Your task to perform on an android device: Show me productivity apps on the Play Store Image 0: 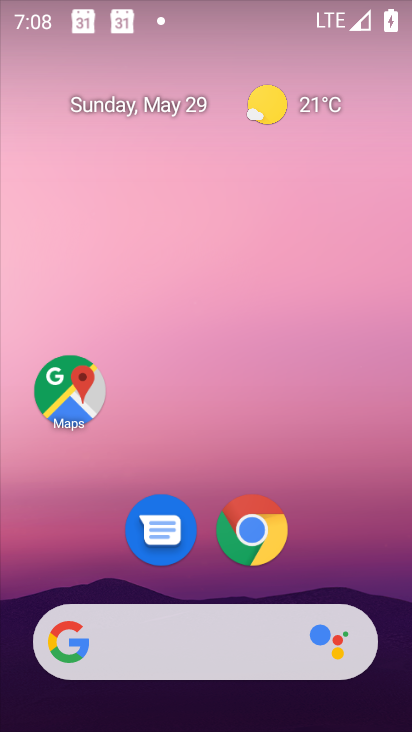
Step 0: press home button
Your task to perform on an android device: Show me productivity apps on the Play Store Image 1: 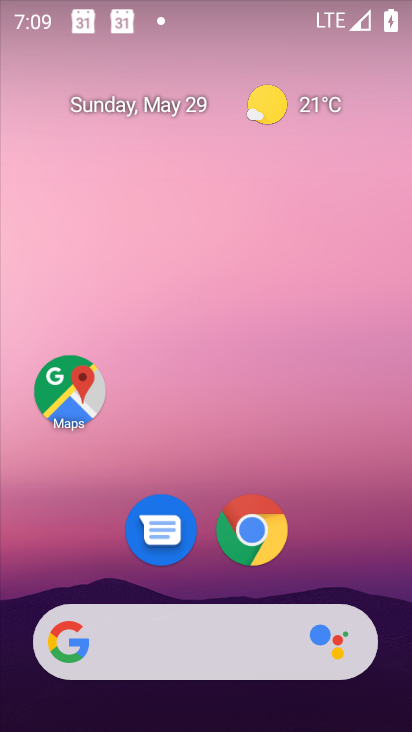
Step 1: drag from (263, 684) to (248, 239)
Your task to perform on an android device: Show me productivity apps on the Play Store Image 2: 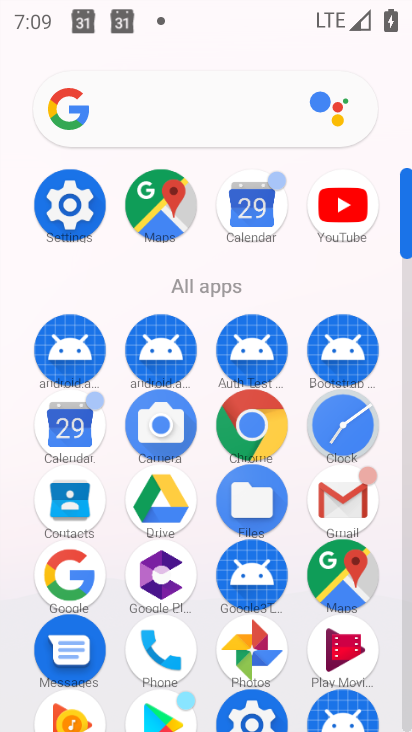
Step 2: click (158, 705)
Your task to perform on an android device: Show me productivity apps on the Play Store Image 3: 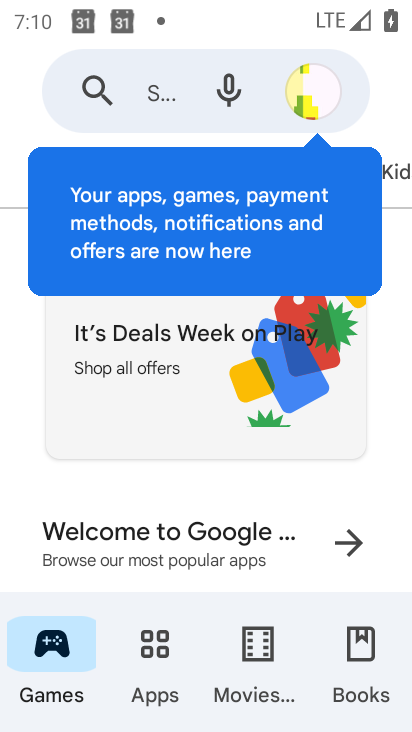
Step 3: click (149, 72)
Your task to perform on an android device: Show me productivity apps on the Play Store Image 4: 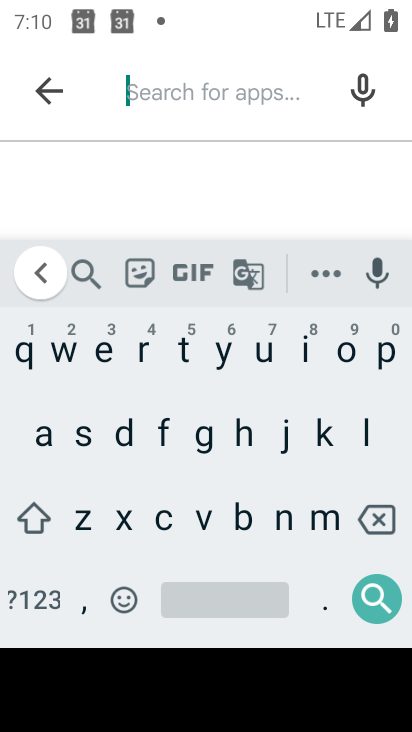
Step 4: click (380, 350)
Your task to perform on an android device: Show me productivity apps on the Play Store Image 5: 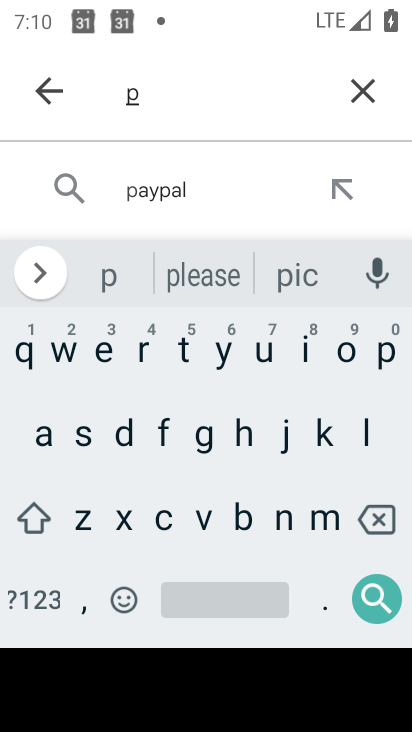
Step 5: click (143, 358)
Your task to perform on an android device: Show me productivity apps on the Play Store Image 6: 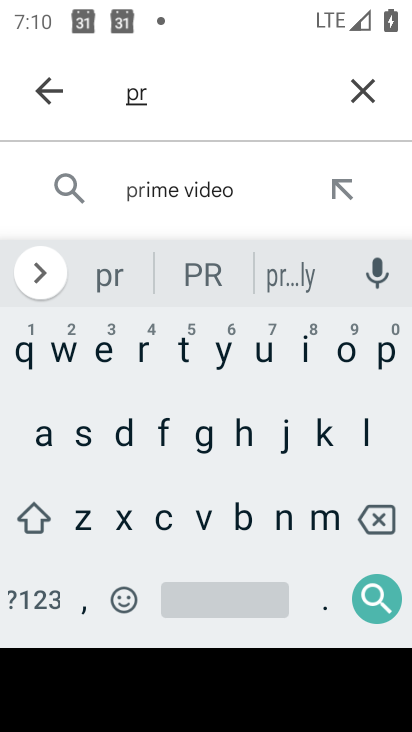
Step 6: click (343, 356)
Your task to perform on an android device: Show me productivity apps on the Play Store Image 7: 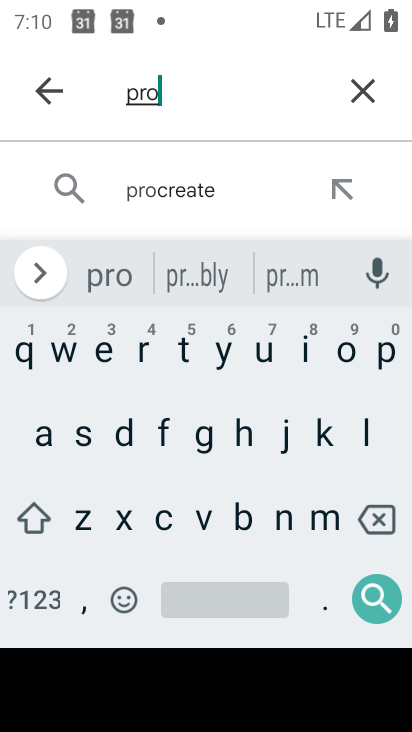
Step 7: click (124, 430)
Your task to perform on an android device: Show me productivity apps on the Play Store Image 8: 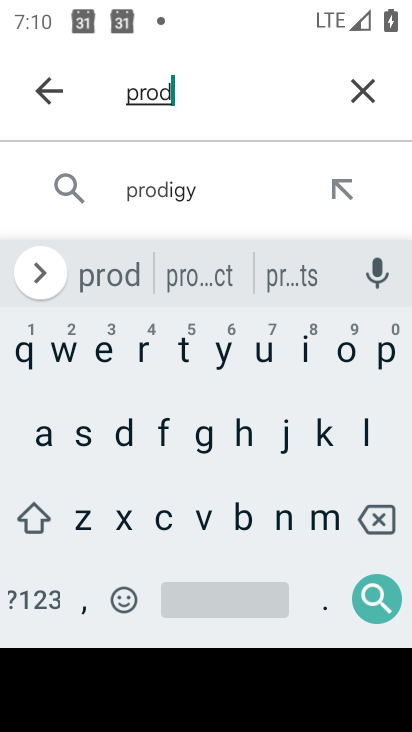
Step 8: click (261, 358)
Your task to perform on an android device: Show me productivity apps on the Play Store Image 9: 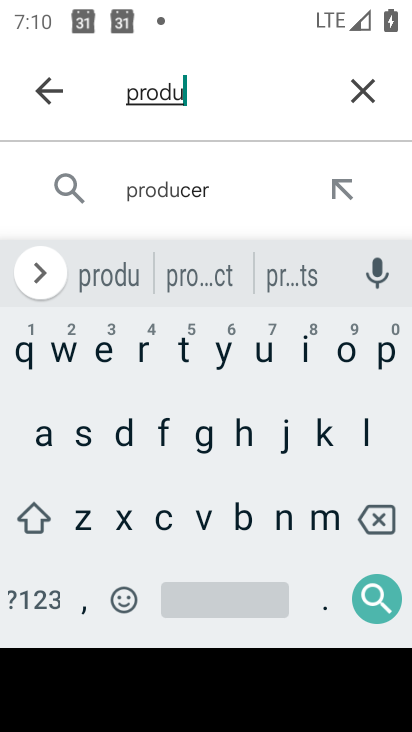
Step 9: click (158, 528)
Your task to perform on an android device: Show me productivity apps on the Play Store Image 10: 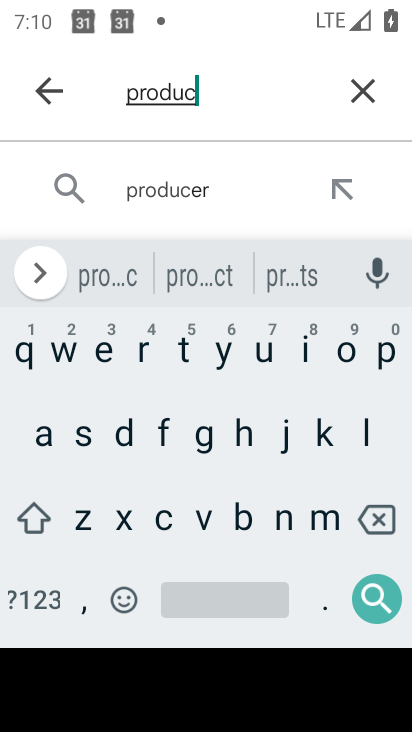
Step 10: click (189, 350)
Your task to perform on an android device: Show me productivity apps on the Play Store Image 11: 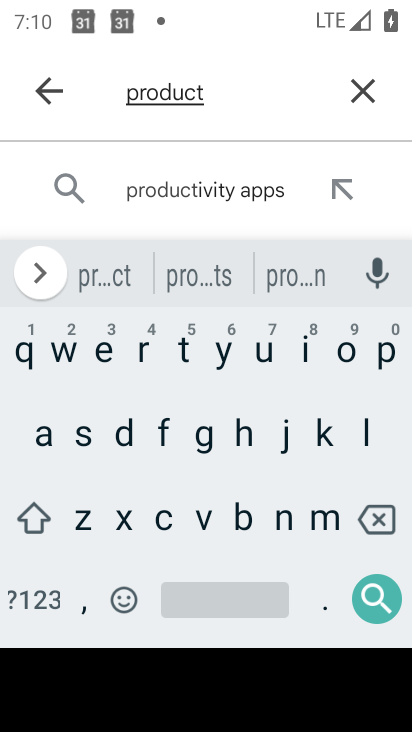
Step 11: click (301, 354)
Your task to perform on an android device: Show me productivity apps on the Play Store Image 12: 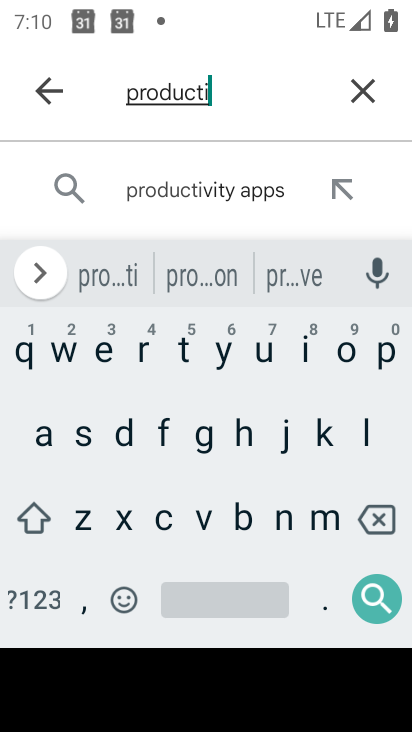
Step 12: click (203, 522)
Your task to perform on an android device: Show me productivity apps on the Play Store Image 13: 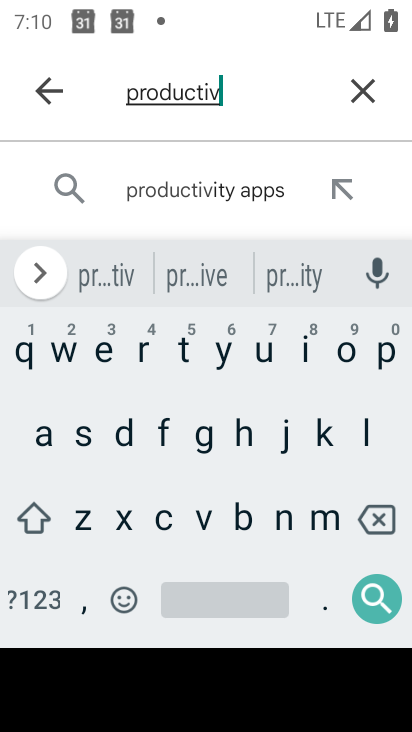
Step 13: click (288, 293)
Your task to perform on an android device: Show me productivity apps on the Play Store Image 14: 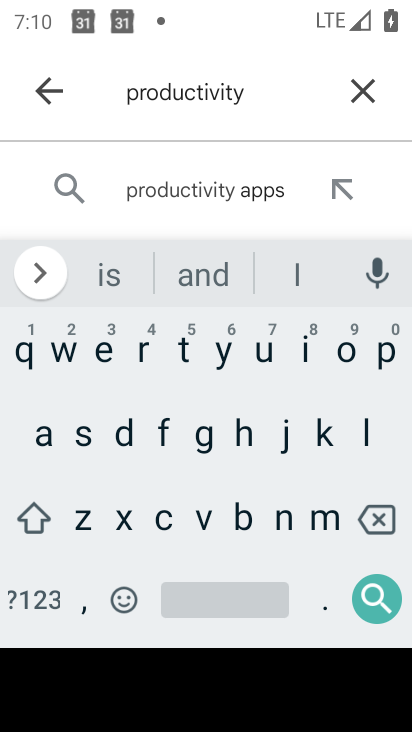
Step 14: click (228, 178)
Your task to perform on an android device: Show me productivity apps on the Play Store Image 15: 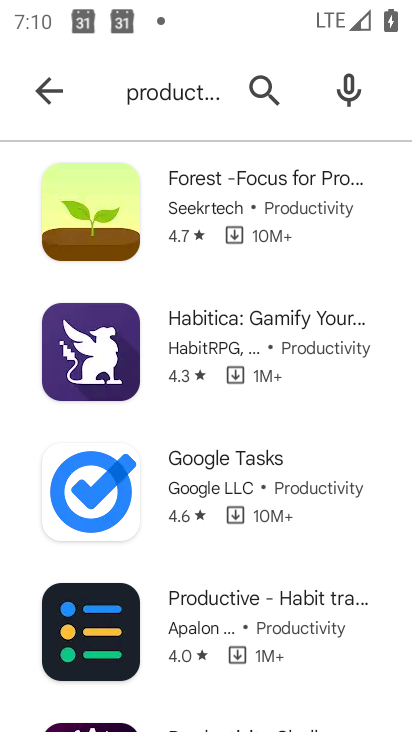
Step 15: task complete